Your task to perform on an android device: Search for pizza restaurants on Maps Image 0: 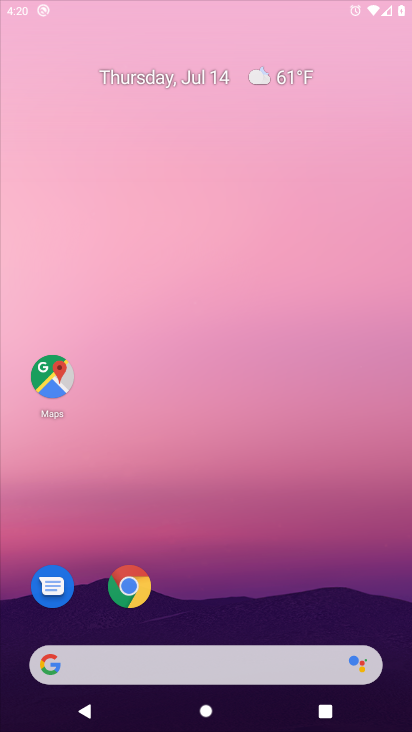
Step 0: press home button
Your task to perform on an android device: Search for pizza restaurants on Maps Image 1: 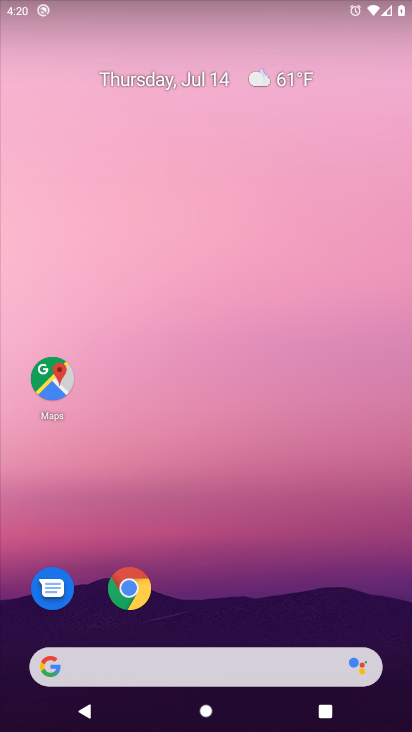
Step 1: drag from (206, 624) to (184, 40)
Your task to perform on an android device: Search for pizza restaurants on Maps Image 2: 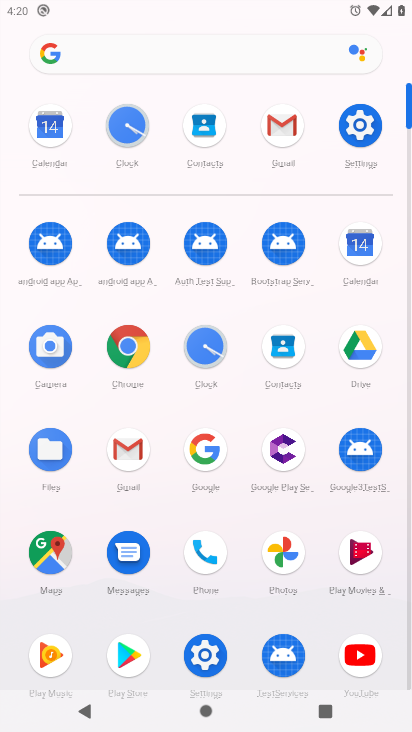
Step 2: click (56, 568)
Your task to perform on an android device: Search for pizza restaurants on Maps Image 3: 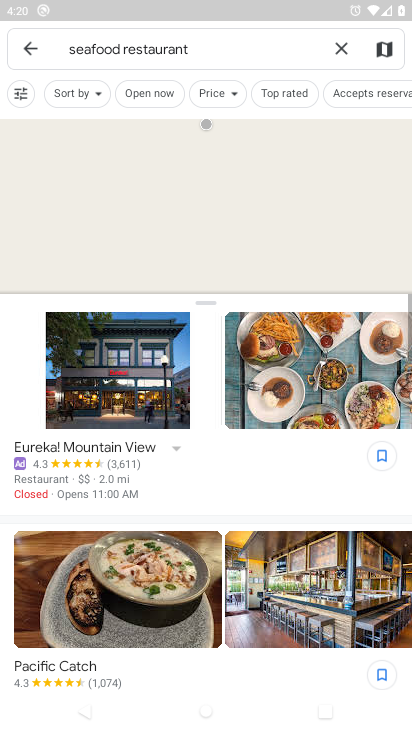
Step 3: click (339, 45)
Your task to perform on an android device: Search for pizza restaurants on Maps Image 4: 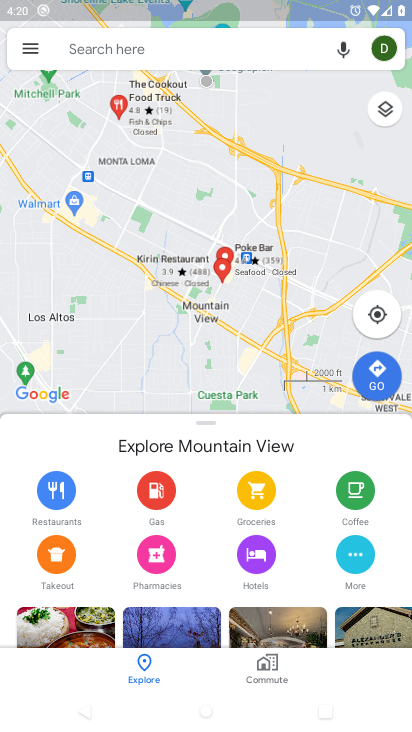
Step 4: click (192, 36)
Your task to perform on an android device: Search for pizza restaurants on Maps Image 5: 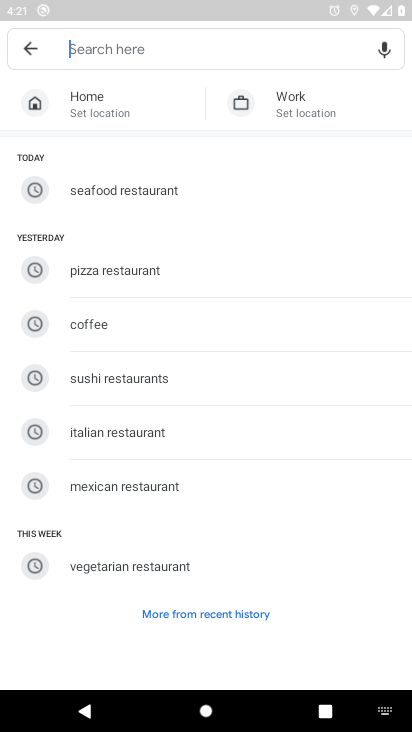
Step 5: click (115, 266)
Your task to perform on an android device: Search for pizza restaurants on Maps Image 6: 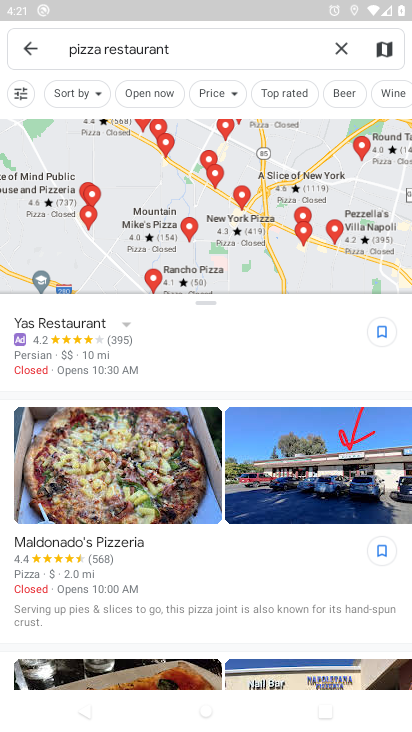
Step 6: task complete